Your task to perform on an android device: choose inbox layout in the gmail app Image 0: 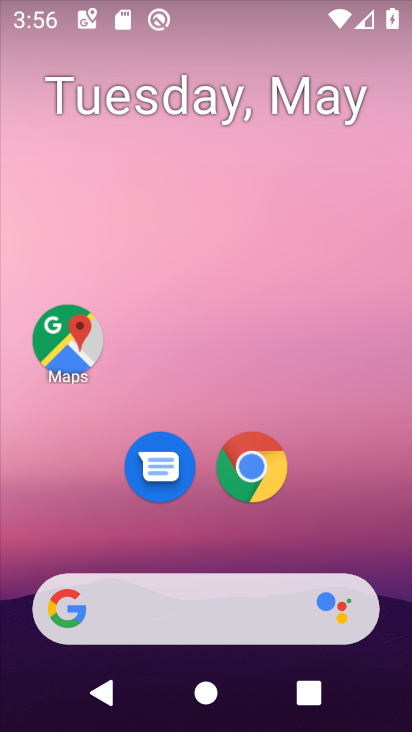
Step 0: drag from (276, 550) to (287, 0)
Your task to perform on an android device: choose inbox layout in the gmail app Image 1: 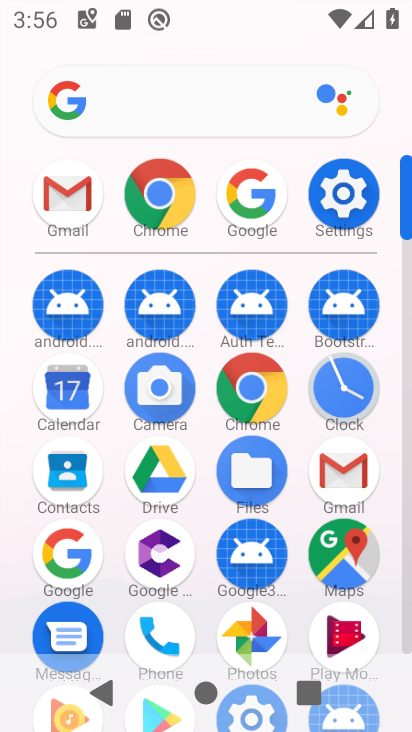
Step 1: click (71, 212)
Your task to perform on an android device: choose inbox layout in the gmail app Image 2: 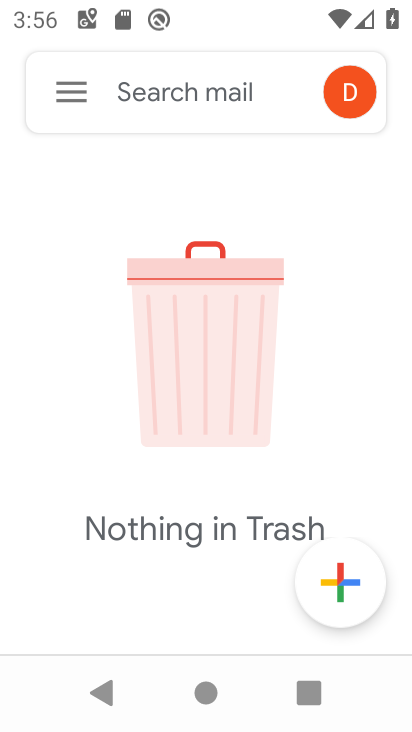
Step 2: click (66, 93)
Your task to perform on an android device: choose inbox layout in the gmail app Image 3: 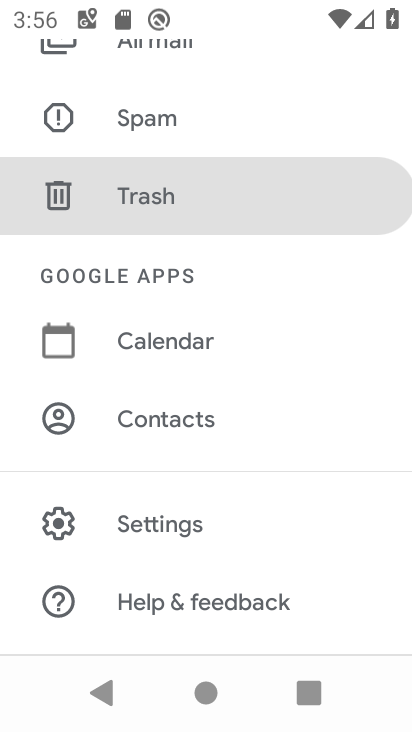
Step 3: click (159, 523)
Your task to perform on an android device: choose inbox layout in the gmail app Image 4: 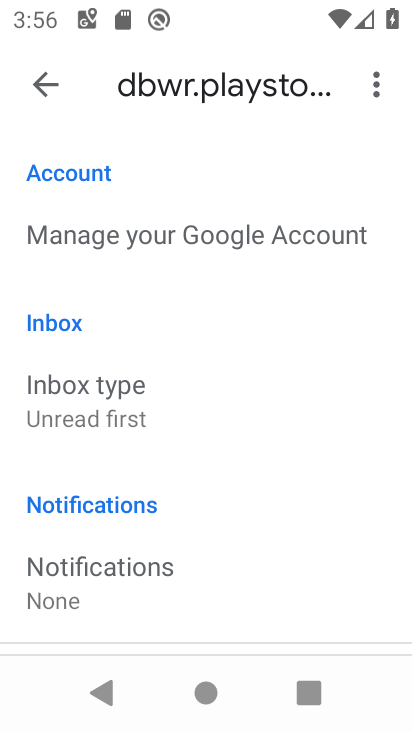
Step 4: click (108, 416)
Your task to perform on an android device: choose inbox layout in the gmail app Image 5: 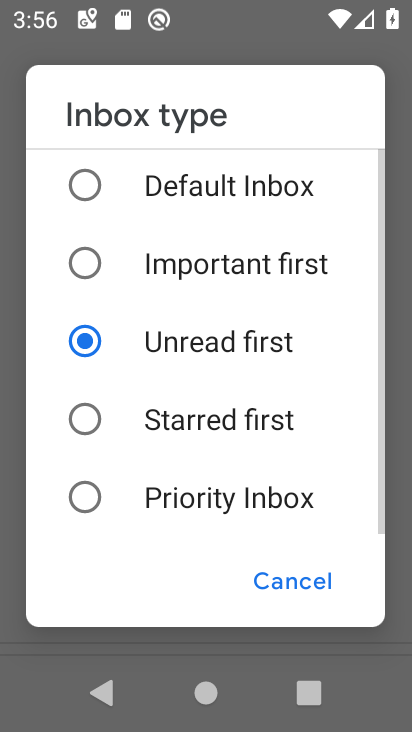
Step 5: click (96, 187)
Your task to perform on an android device: choose inbox layout in the gmail app Image 6: 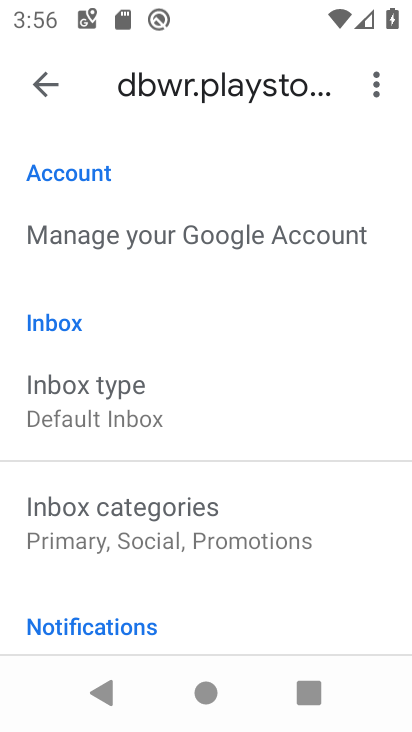
Step 6: task complete